Your task to perform on an android device: toggle sleep mode Image 0: 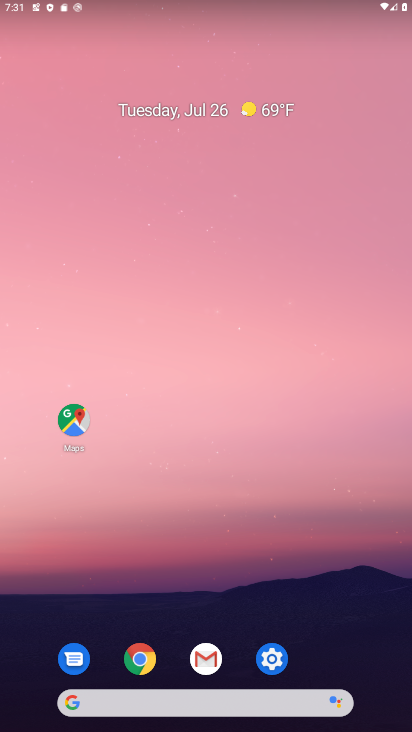
Step 0: drag from (318, 720) to (295, 217)
Your task to perform on an android device: toggle sleep mode Image 1: 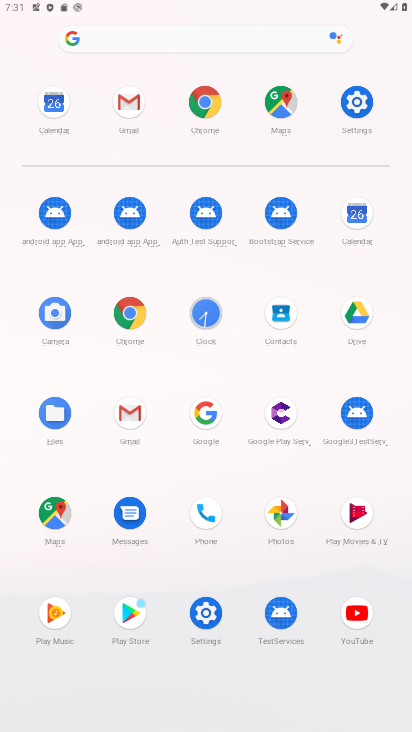
Step 1: click (355, 102)
Your task to perform on an android device: toggle sleep mode Image 2: 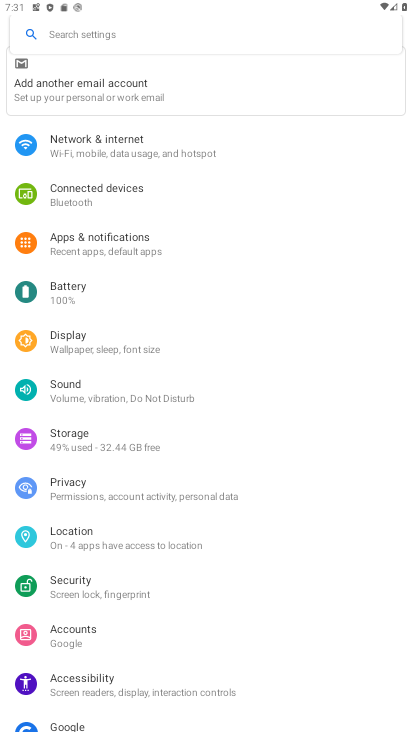
Step 2: click (129, 35)
Your task to perform on an android device: toggle sleep mode Image 3: 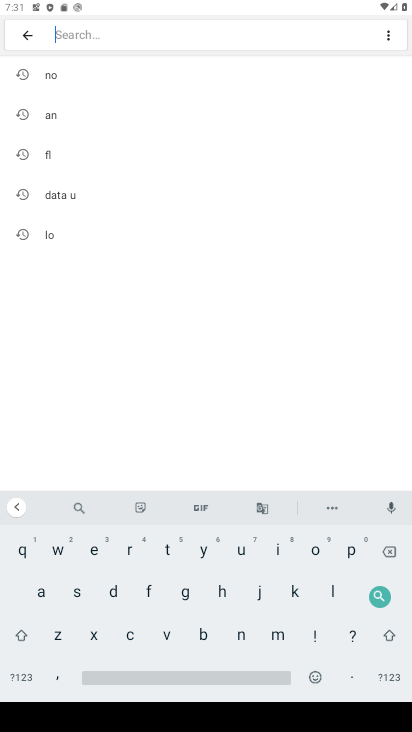
Step 3: click (78, 588)
Your task to perform on an android device: toggle sleep mode Image 4: 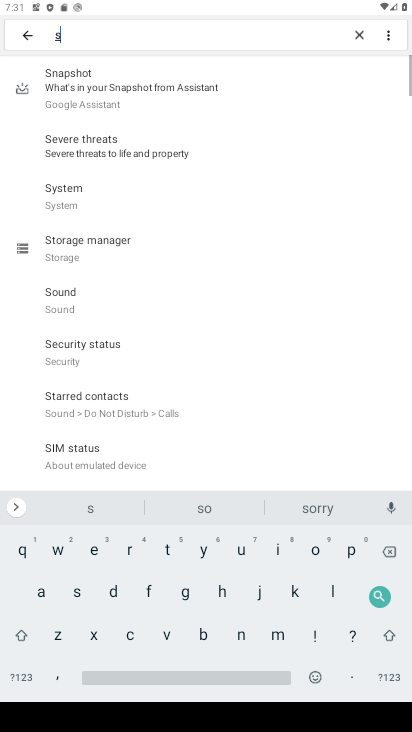
Step 4: click (335, 588)
Your task to perform on an android device: toggle sleep mode Image 5: 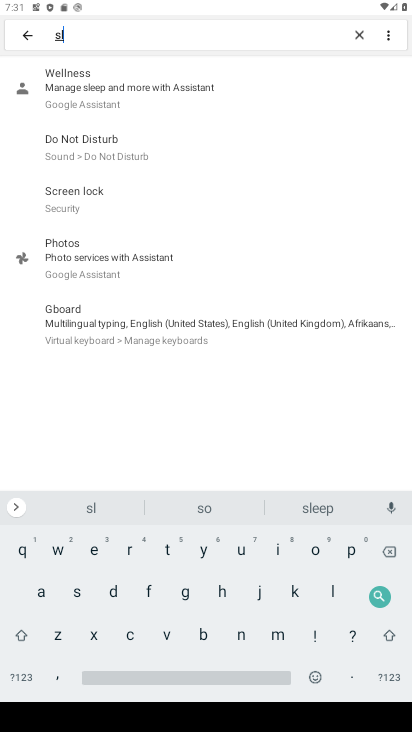
Step 5: click (131, 151)
Your task to perform on an android device: toggle sleep mode Image 6: 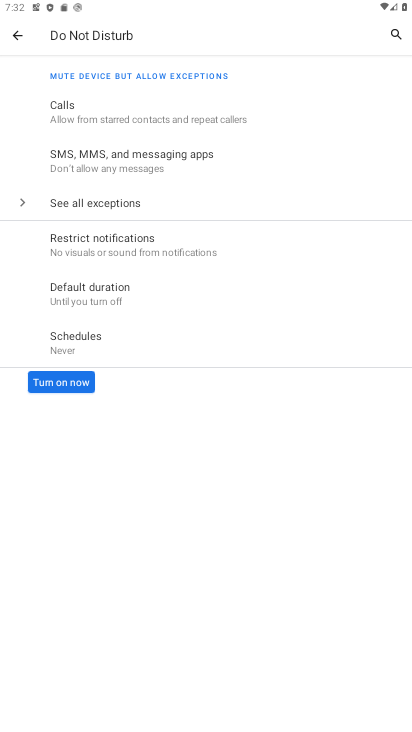
Step 6: task complete